Your task to perform on an android device: Search for flights from Buenos aires to Tokyo Image 0: 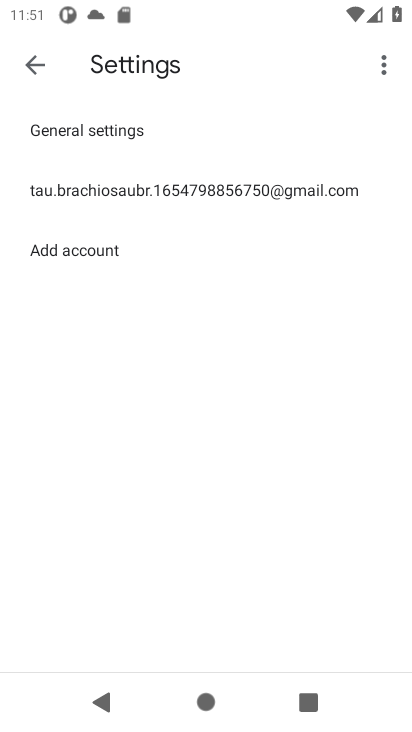
Step 0: press home button
Your task to perform on an android device: Search for flights from Buenos aires to Tokyo Image 1: 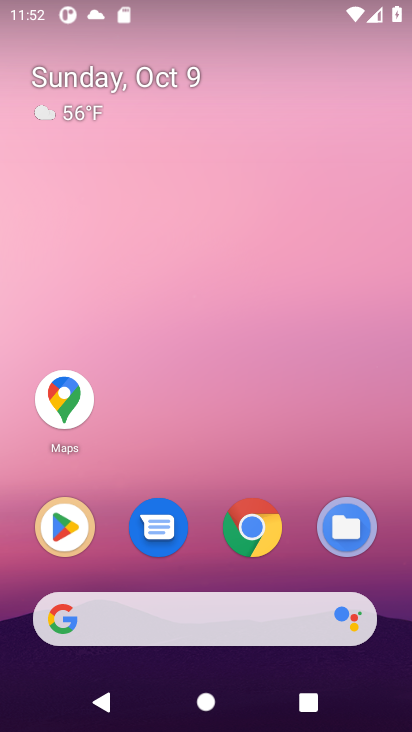
Step 1: click (252, 523)
Your task to perform on an android device: Search for flights from Buenos aires to Tokyo Image 2: 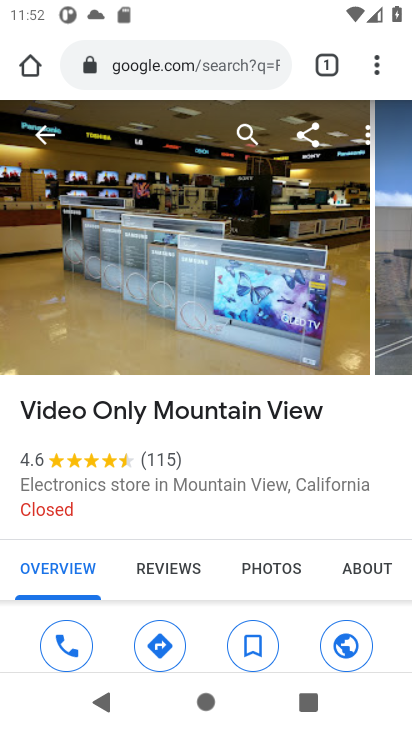
Step 2: click (212, 68)
Your task to perform on an android device: Search for flights from Buenos aires to Tokyo Image 3: 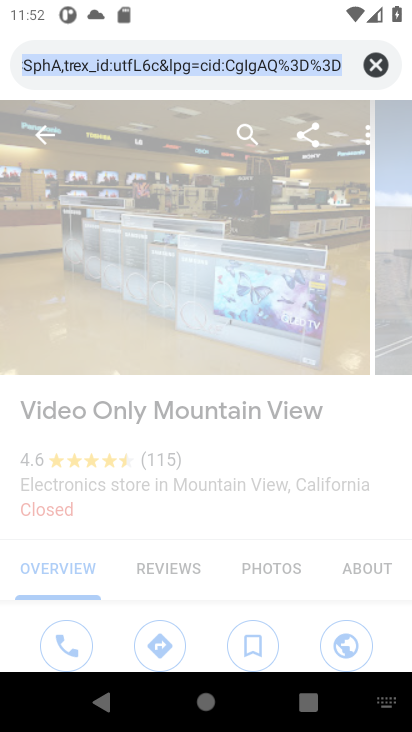
Step 3: click (388, 75)
Your task to perform on an android device: Search for flights from Buenos aires to Tokyo Image 4: 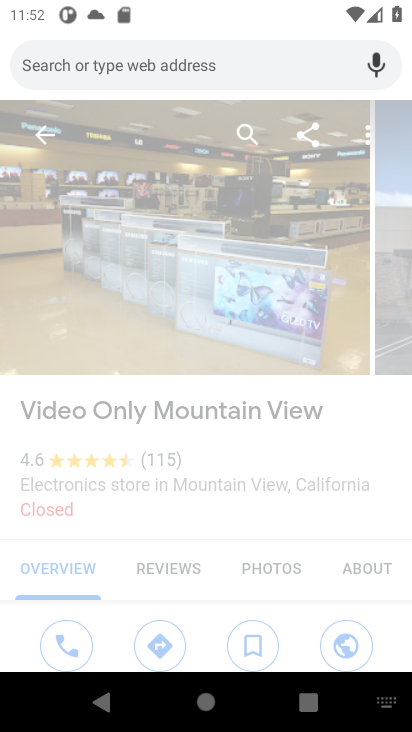
Step 4: type "flights from Buenos aires to Tokyo"
Your task to perform on an android device: Search for flights from Buenos aires to Tokyo Image 5: 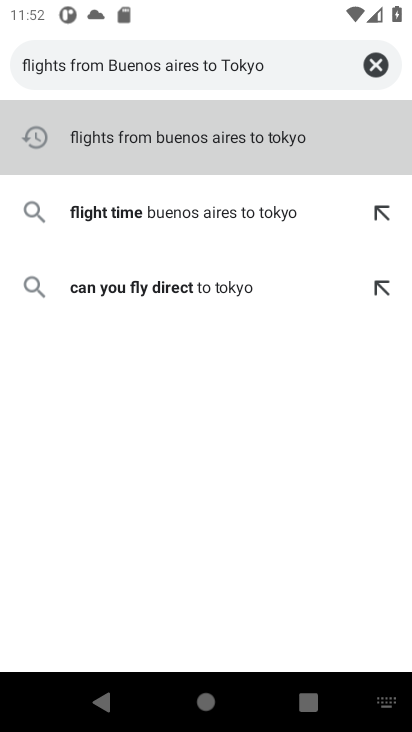
Step 5: click (245, 139)
Your task to perform on an android device: Search for flights from Buenos aires to Tokyo Image 6: 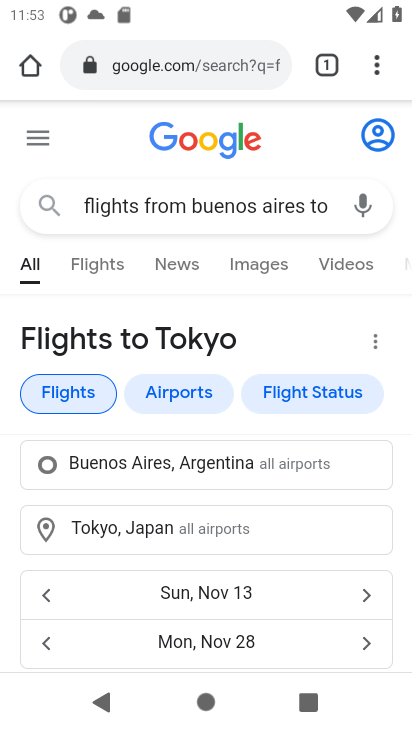
Step 6: task complete